Your task to perform on an android device: allow cookies in the chrome app Image 0: 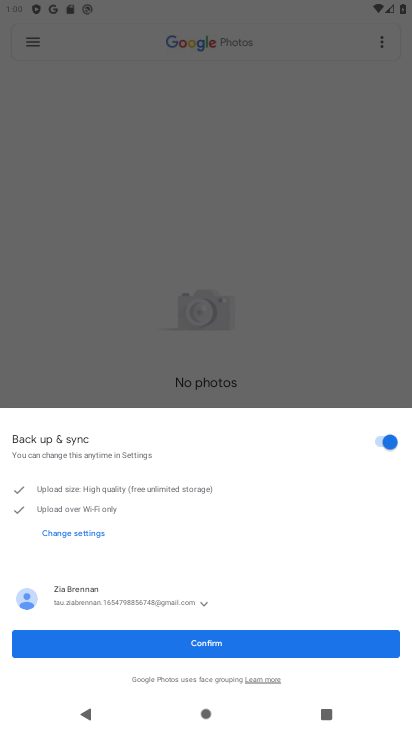
Step 0: click (164, 646)
Your task to perform on an android device: allow cookies in the chrome app Image 1: 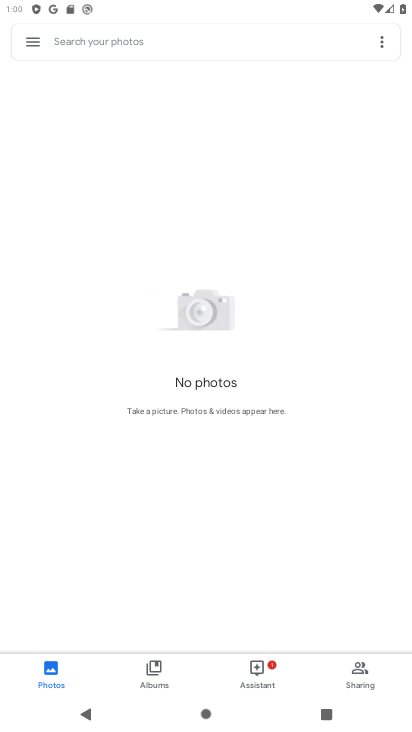
Step 1: press home button
Your task to perform on an android device: allow cookies in the chrome app Image 2: 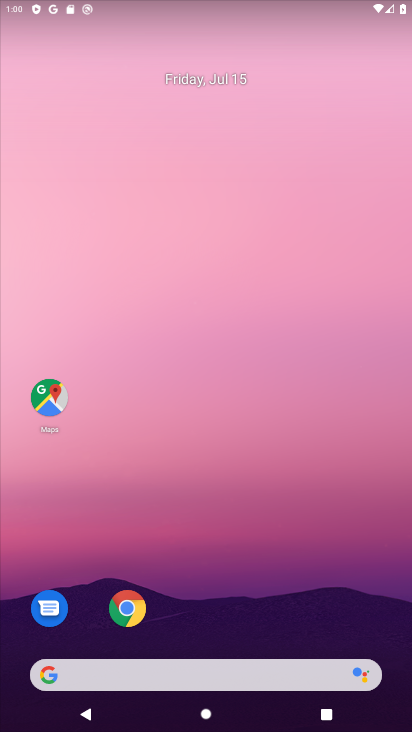
Step 2: click (139, 600)
Your task to perform on an android device: allow cookies in the chrome app Image 3: 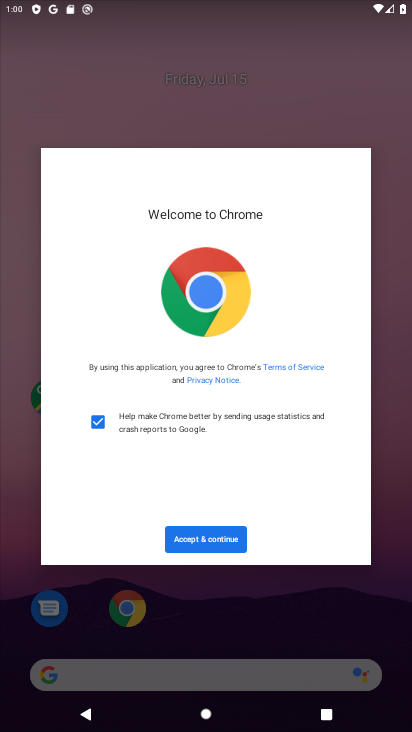
Step 3: click (210, 533)
Your task to perform on an android device: allow cookies in the chrome app Image 4: 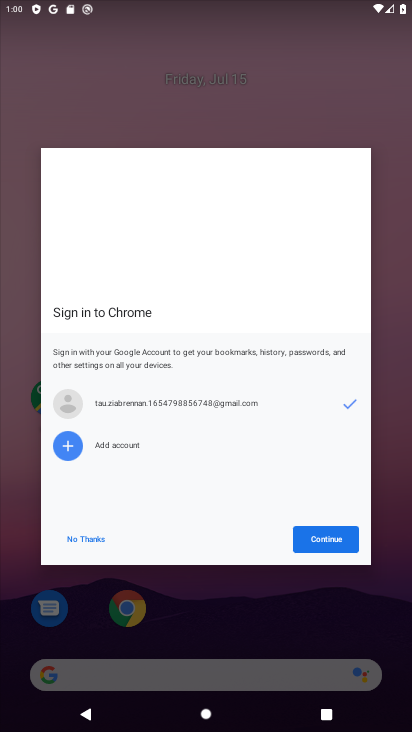
Step 4: click (316, 538)
Your task to perform on an android device: allow cookies in the chrome app Image 5: 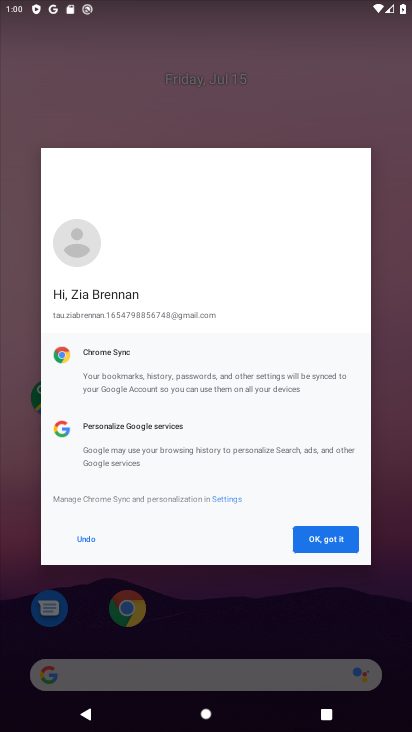
Step 5: click (316, 538)
Your task to perform on an android device: allow cookies in the chrome app Image 6: 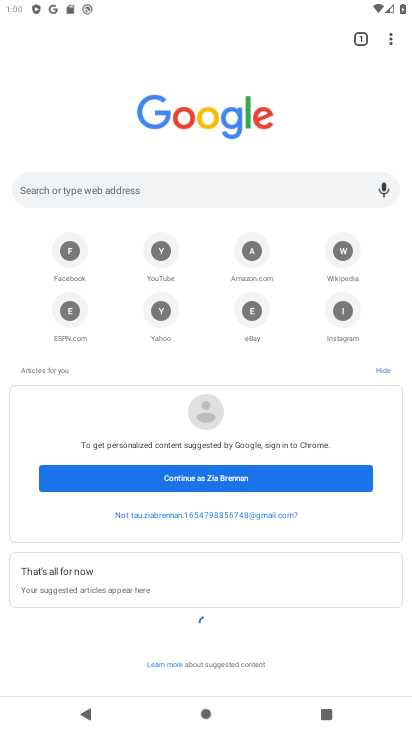
Step 6: click (396, 26)
Your task to perform on an android device: allow cookies in the chrome app Image 7: 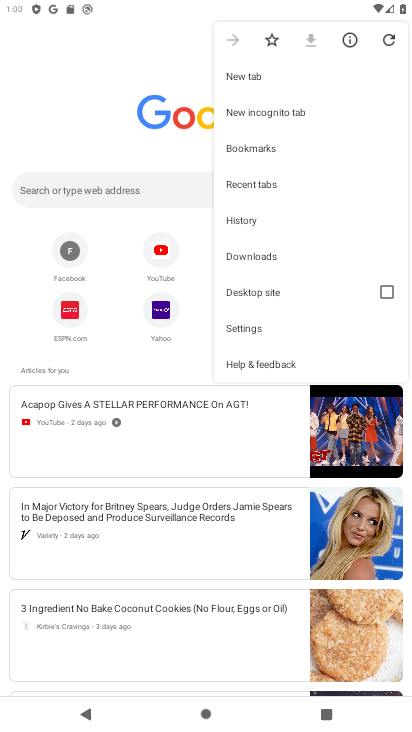
Step 7: click (267, 336)
Your task to perform on an android device: allow cookies in the chrome app Image 8: 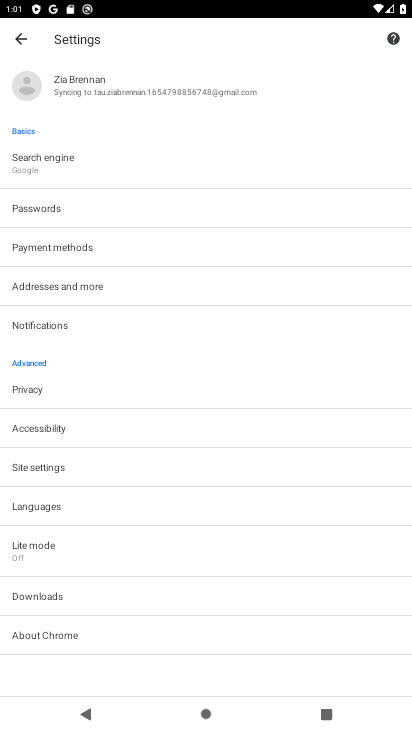
Step 8: click (62, 470)
Your task to perform on an android device: allow cookies in the chrome app Image 9: 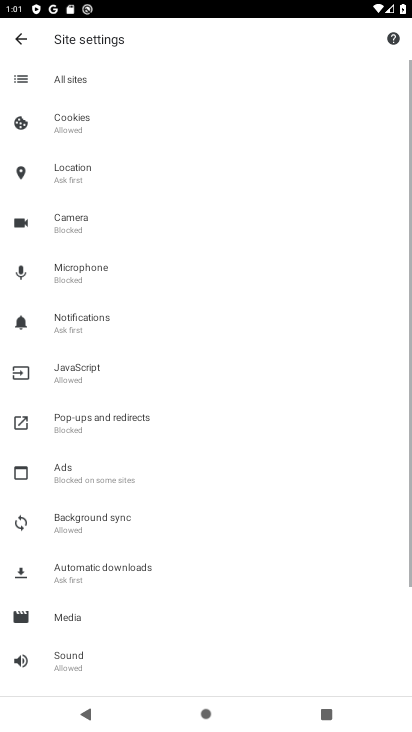
Step 9: click (85, 122)
Your task to perform on an android device: allow cookies in the chrome app Image 10: 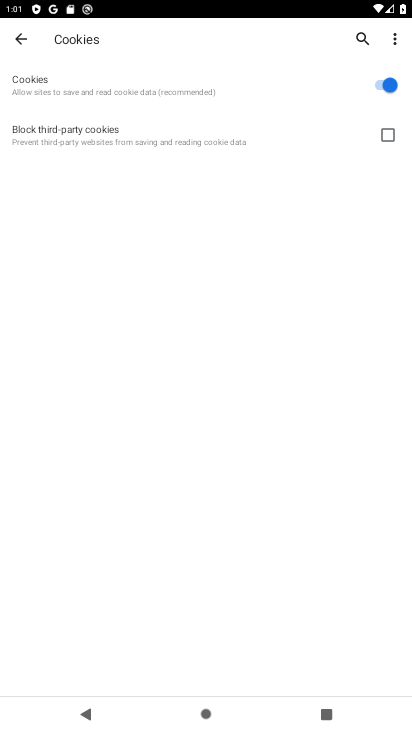
Step 10: task complete